Your task to perform on an android device: Go to settings Image 0: 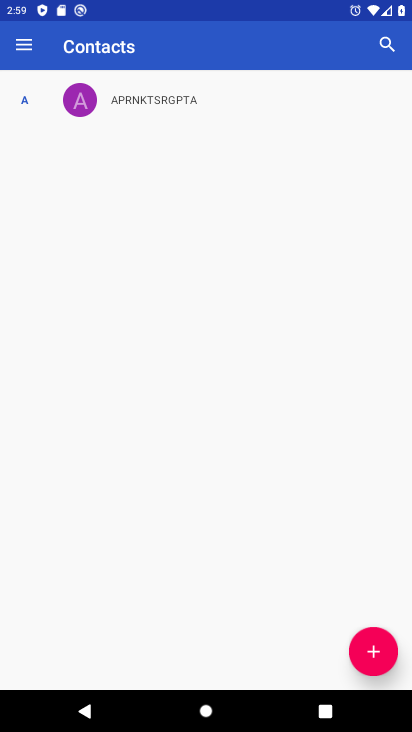
Step 0: press home button
Your task to perform on an android device: Go to settings Image 1: 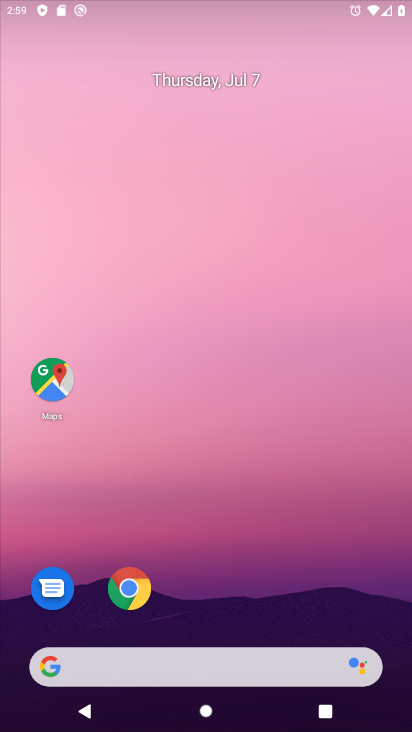
Step 1: drag from (114, 624) to (162, 295)
Your task to perform on an android device: Go to settings Image 2: 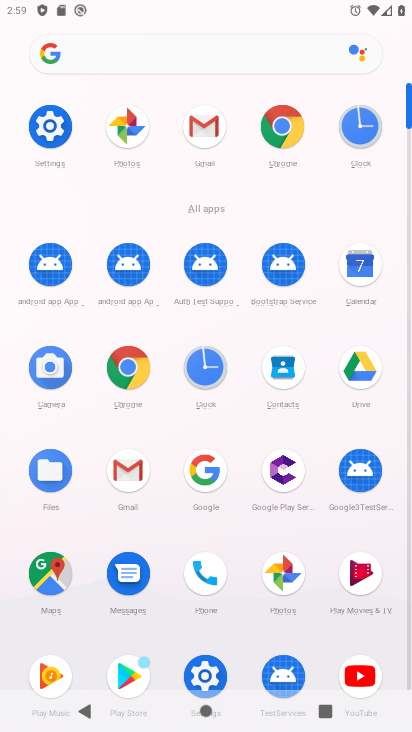
Step 2: click (46, 112)
Your task to perform on an android device: Go to settings Image 3: 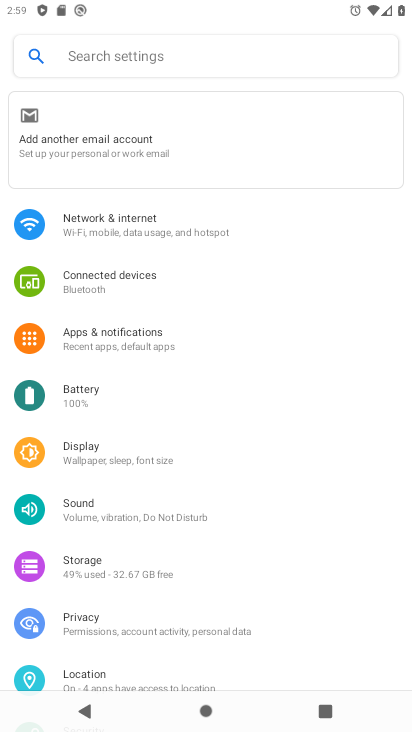
Step 3: task complete